Your task to perform on an android device: open app "Microsoft Excel" (install if not already installed) Image 0: 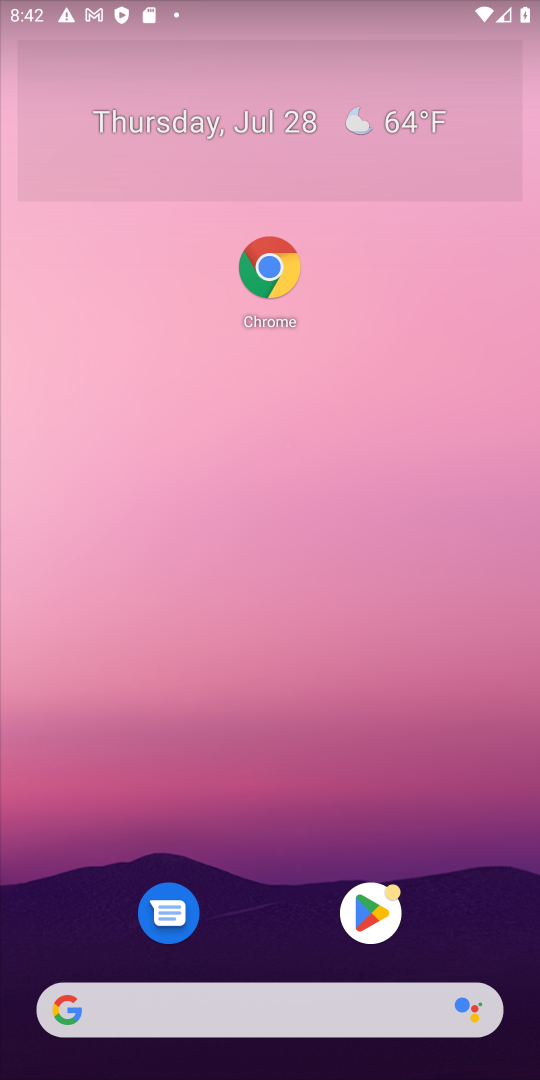
Step 0: click (393, 923)
Your task to perform on an android device: open app "Microsoft Excel" (install if not already installed) Image 1: 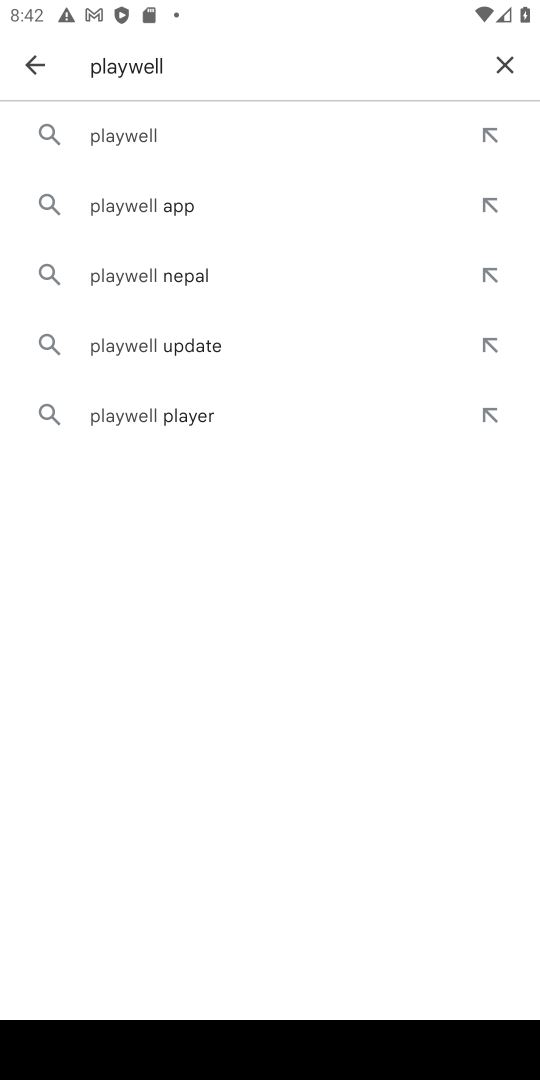
Step 1: click (513, 75)
Your task to perform on an android device: open app "Microsoft Excel" (install if not already installed) Image 2: 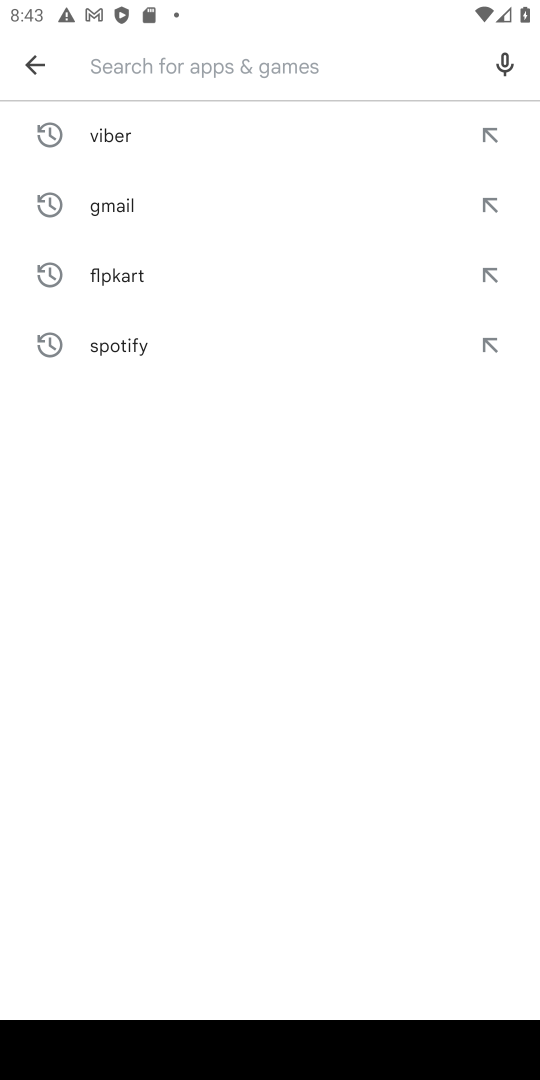
Step 2: type "excel"
Your task to perform on an android device: open app "Microsoft Excel" (install if not already installed) Image 3: 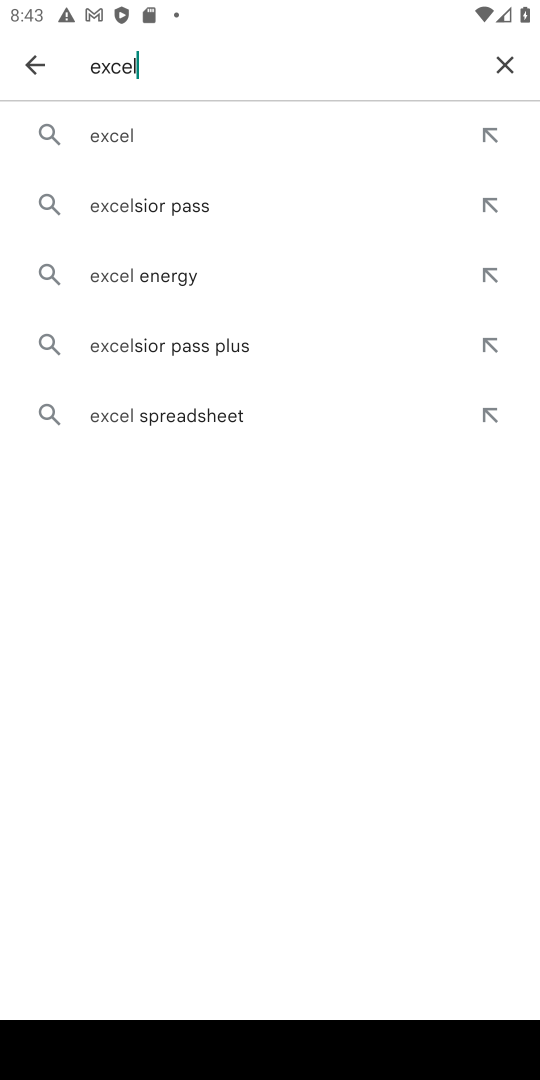
Step 3: click (181, 152)
Your task to perform on an android device: open app "Microsoft Excel" (install if not already installed) Image 4: 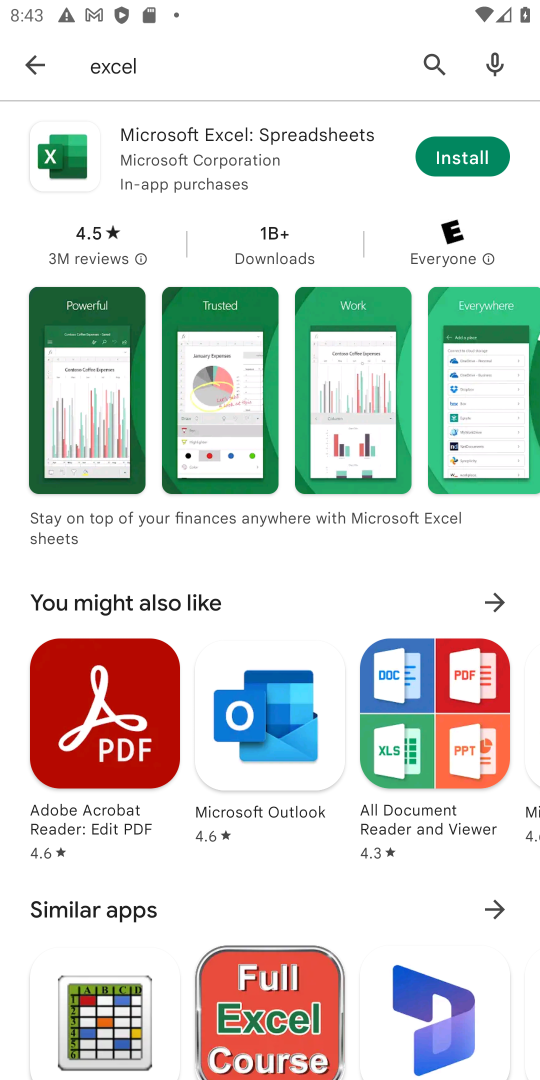
Step 4: click (457, 157)
Your task to perform on an android device: open app "Microsoft Excel" (install if not already installed) Image 5: 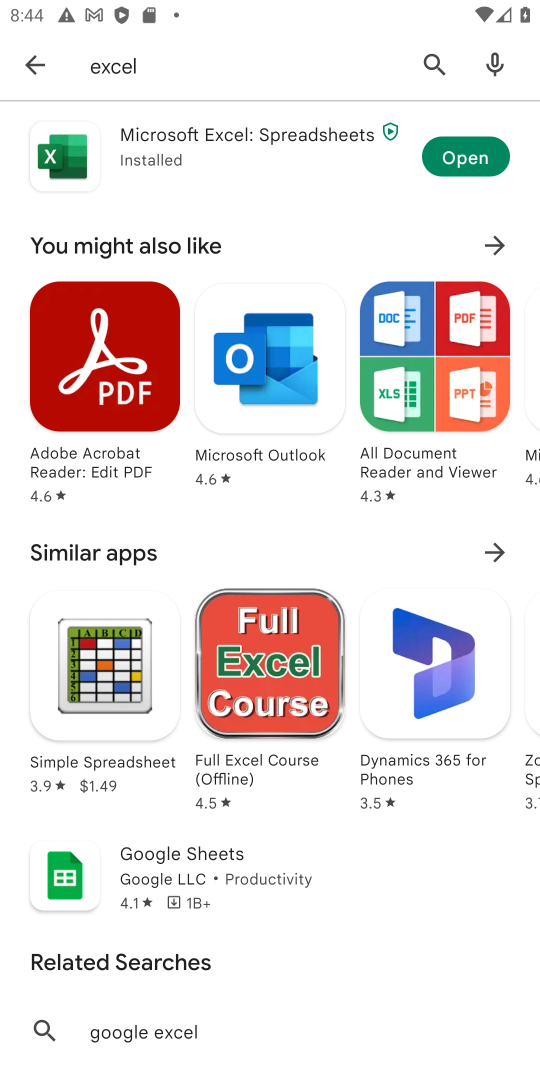
Step 5: click (464, 163)
Your task to perform on an android device: open app "Microsoft Excel" (install if not already installed) Image 6: 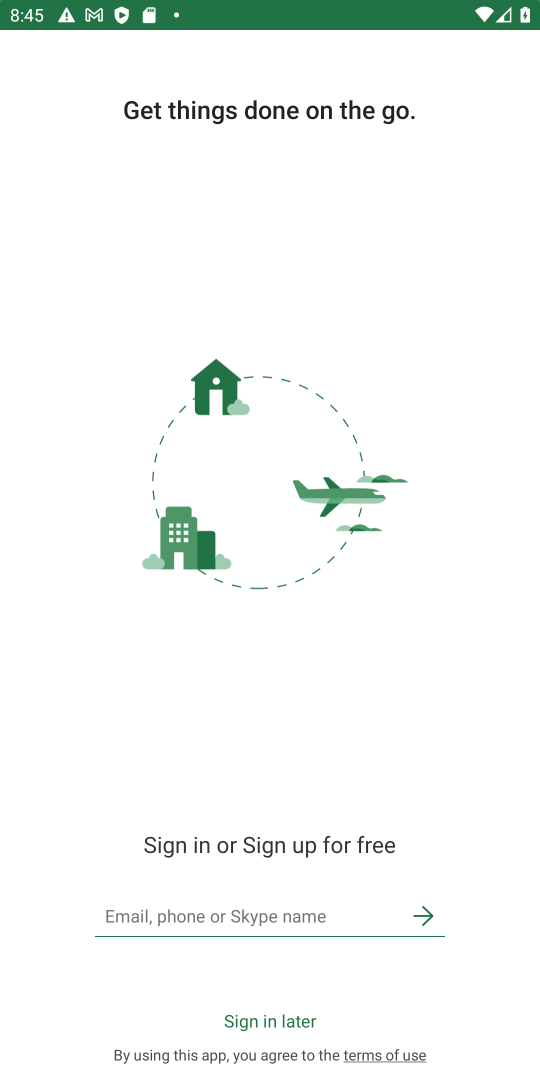
Step 6: task complete